Your task to perform on an android device: allow cookies in the chrome app Image 0: 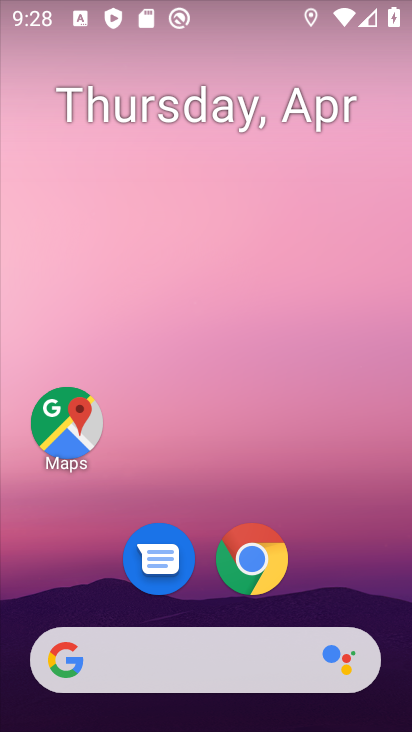
Step 0: click (247, 548)
Your task to perform on an android device: allow cookies in the chrome app Image 1: 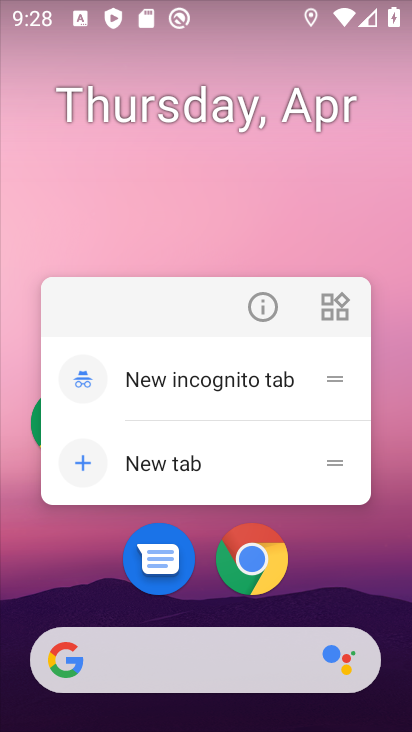
Step 1: click (247, 548)
Your task to perform on an android device: allow cookies in the chrome app Image 2: 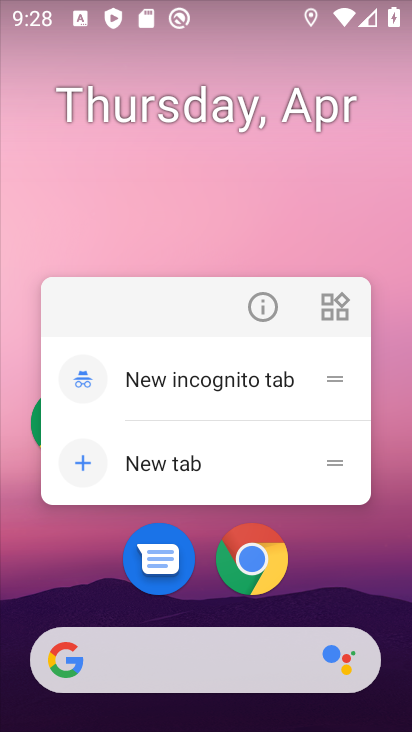
Step 2: click (247, 548)
Your task to perform on an android device: allow cookies in the chrome app Image 3: 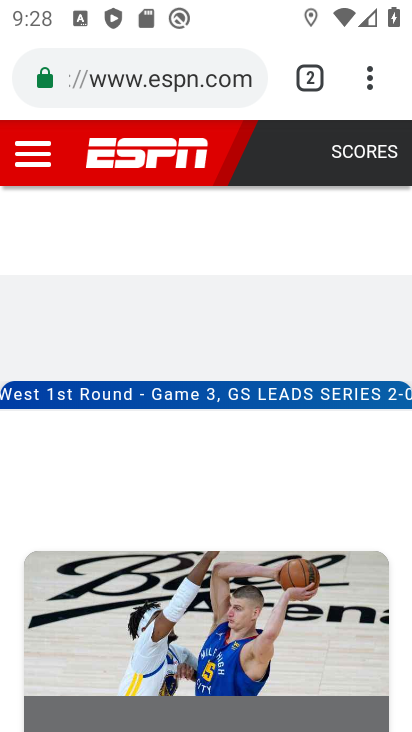
Step 3: click (367, 74)
Your task to perform on an android device: allow cookies in the chrome app Image 4: 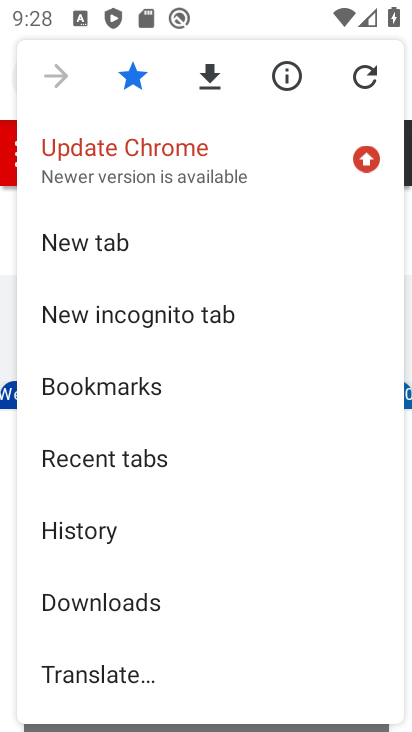
Step 4: drag from (275, 644) to (242, 163)
Your task to perform on an android device: allow cookies in the chrome app Image 5: 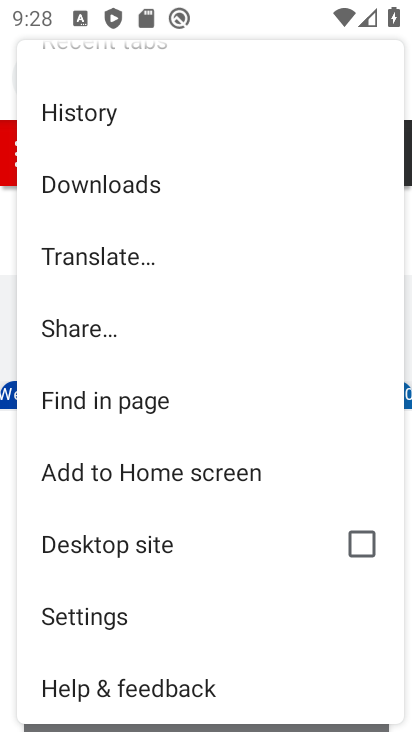
Step 5: click (119, 619)
Your task to perform on an android device: allow cookies in the chrome app Image 6: 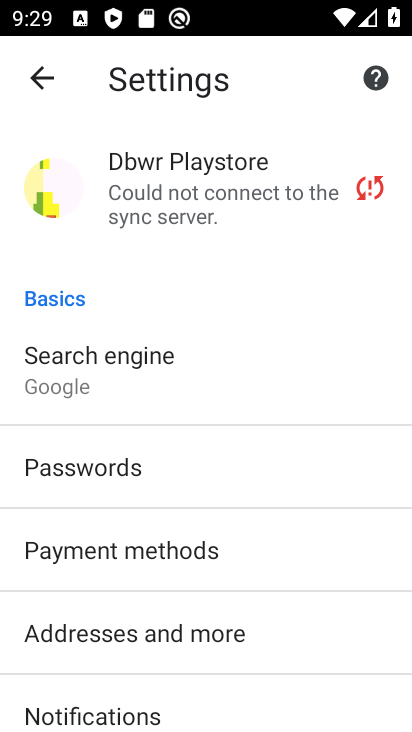
Step 6: drag from (294, 641) to (206, 118)
Your task to perform on an android device: allow cookies in the chrome app Image 7: 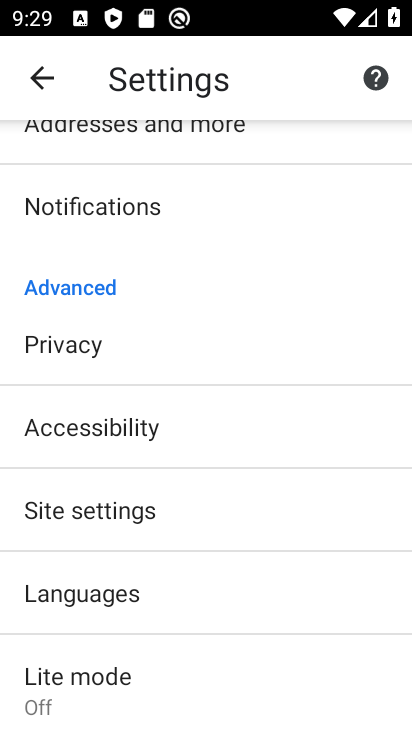
Step 7: click (140, 518)
Your task to perform on an android device: allow cookies in the chrome app Image 8: 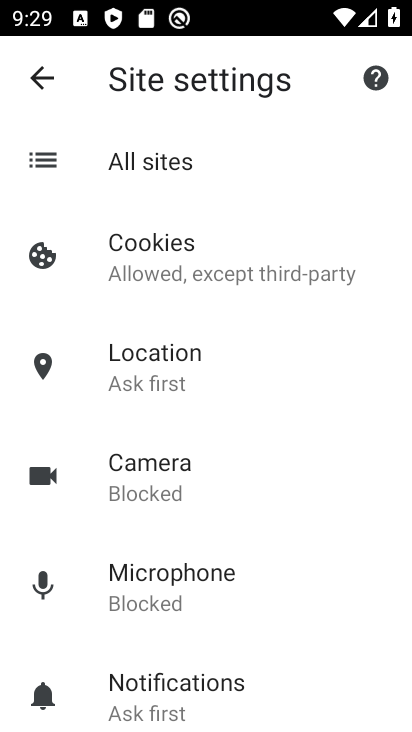
Step 8: click (191, 264)
Your task to perform on an android device: allow cookies in the chrome app Image 9: 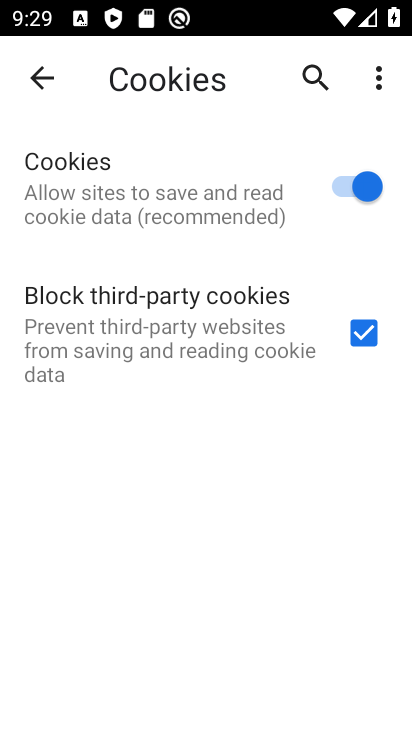
Step 9: task complete